Your task to perform on an android device: toggle location history Image 0: 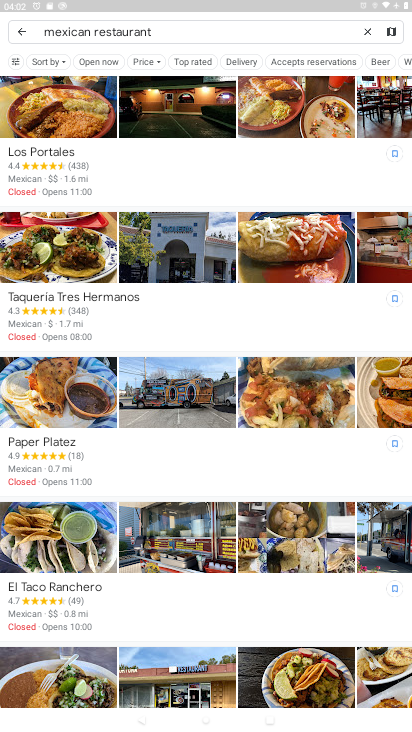
Step 0: press home button
Your task to perform on an android device: toggle location history Image 1: 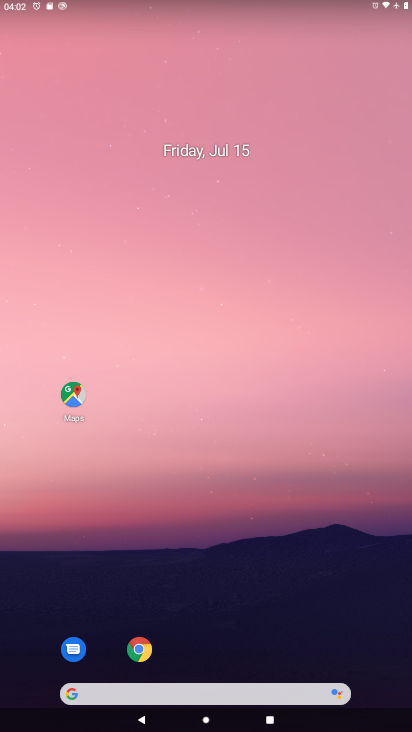
Step 1: click (73, 394)
Your task to perform on an android device: toggle location history Image 2: 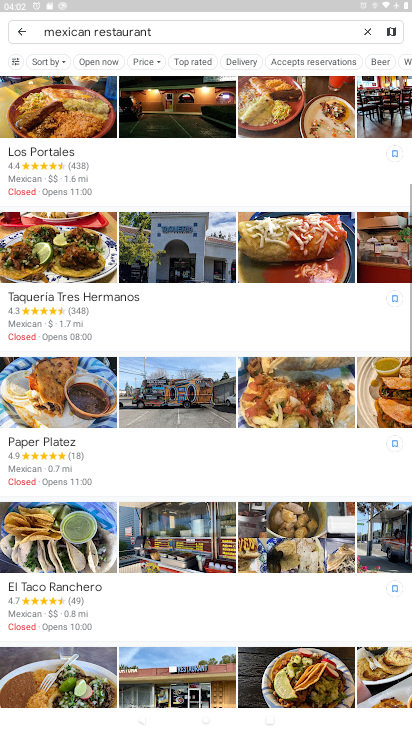
Step 2: click (365, 29)
Your task to perform on an android device: toggle location history Image 3: 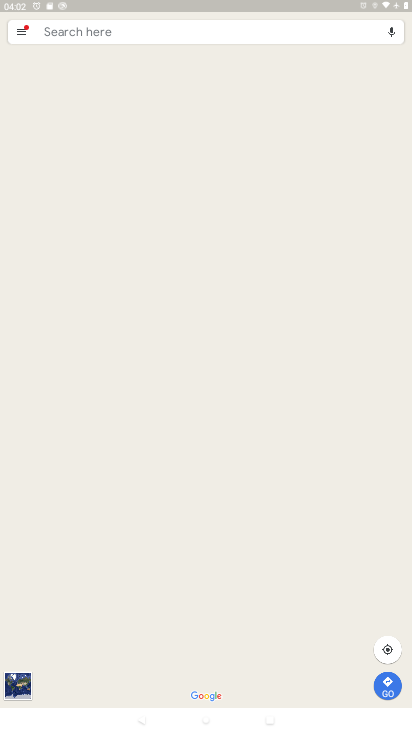
Step 3: click (20, 30)
Your task to perform on an android device: toggle location history Image 4: 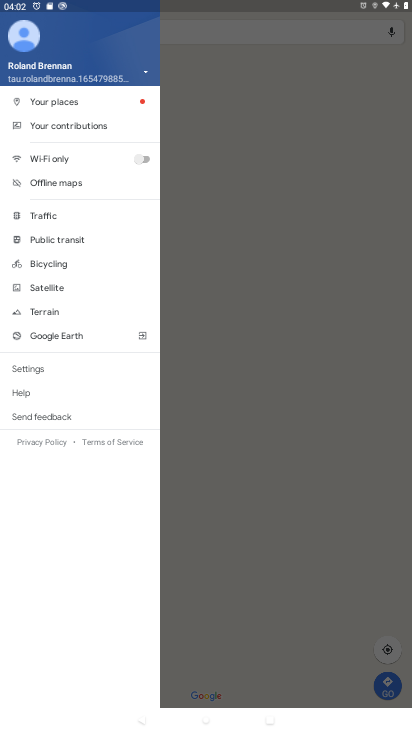
Step 4: click (31, 364)
Your task to perform on an android device: toggle location history Image 5: 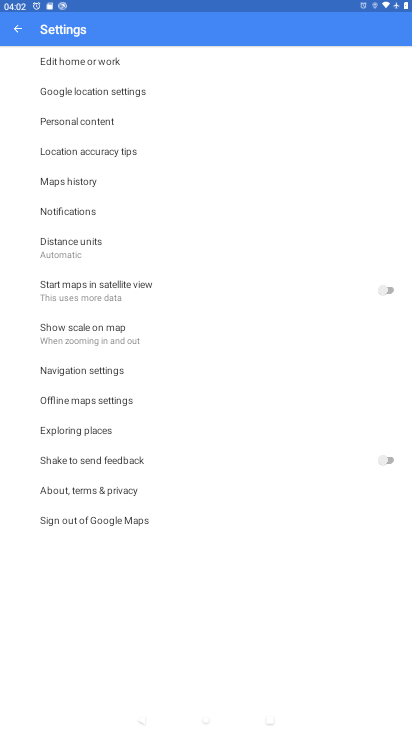
Step 5: click (81, 121)
Your task to perform on an android device: toggle location history Image 6: 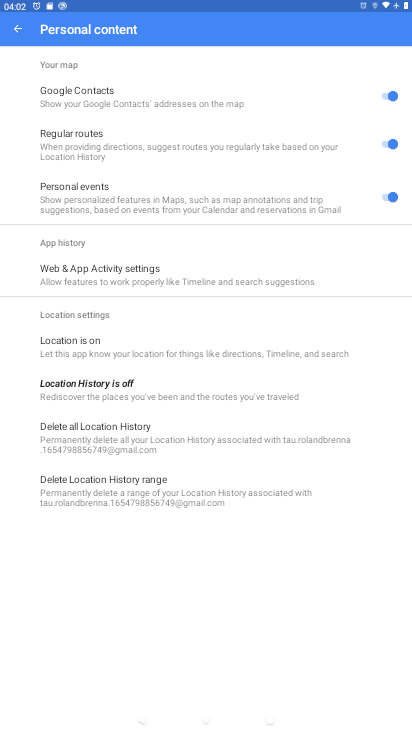
Step 6: click (97, 391)
Your task to perform on an android device: toggle location history Image 7: 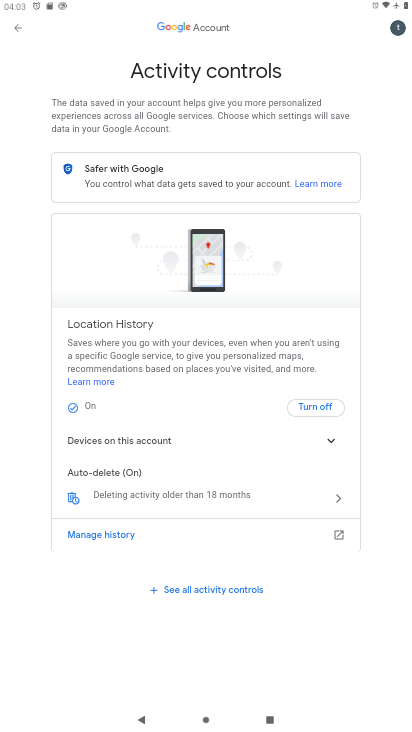
Step 7: click (311, 405)
Your task to perform on an android device: toggle location history Image 8: 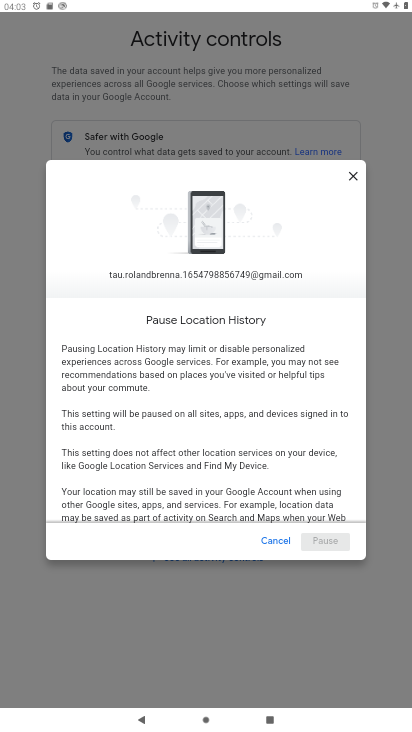
Step 8: drag from (282, 475) to (284, 215)
Your task to perform on an android device: toggle location history Image 9: 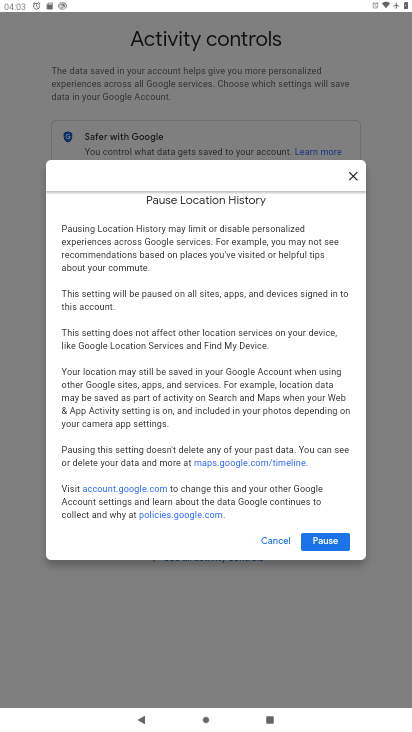
Step 9: click (322, 533)
Your task to perform on an android device: toggle location history Image 10: 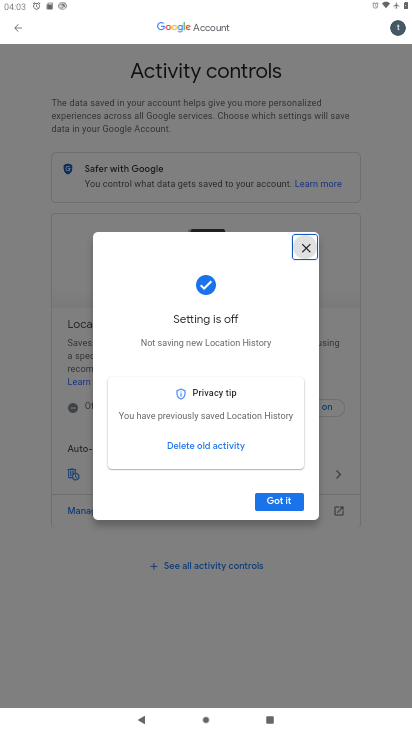
Step 10: click (278, 505)
Your task to perform on an android device: toggle location history Image 11: 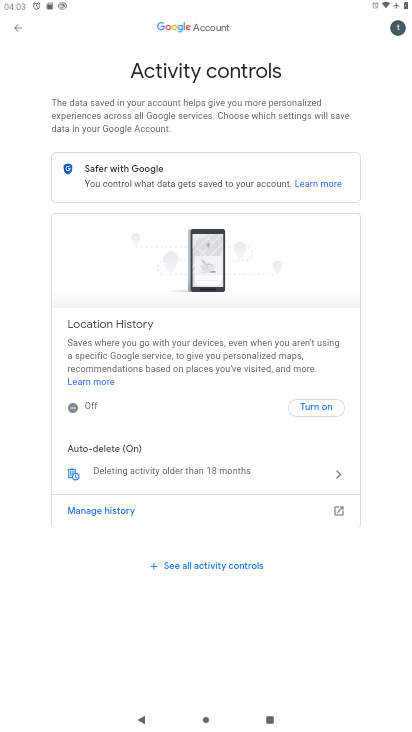
Step 11: task complete